Your task to perform on an android device: Open display settings Image 0: 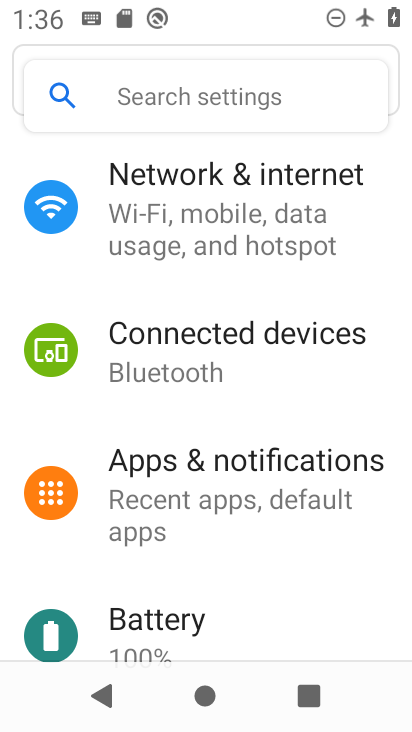
Step 0: drag from (372, 594) to (375, 395)
Your task to perform on an android device: Open display settings Image 1: 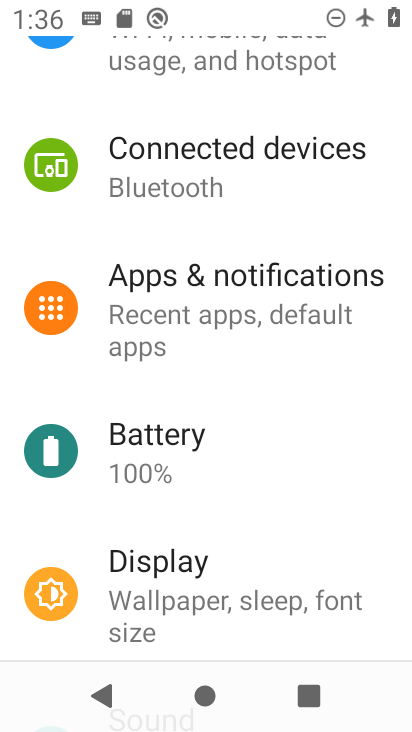
Step 1: drag from (373, 481) to (370, 345)
Your task to perform on an android device: Open display settings Image 2: 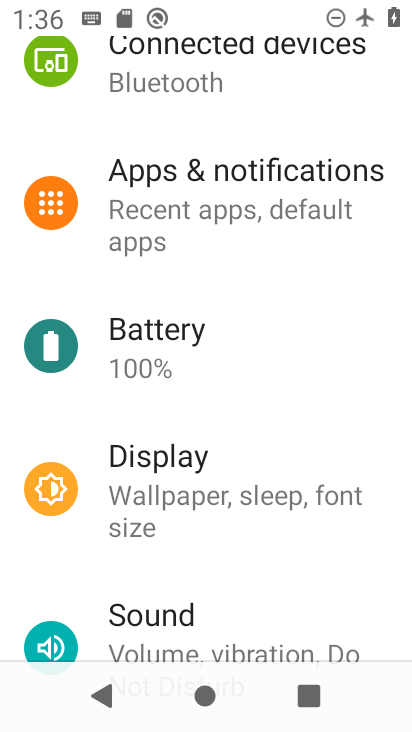
Step 2: drag from (358, 534) to (360, 398)
Your task to perform on an android device: Open display settings Image 3: 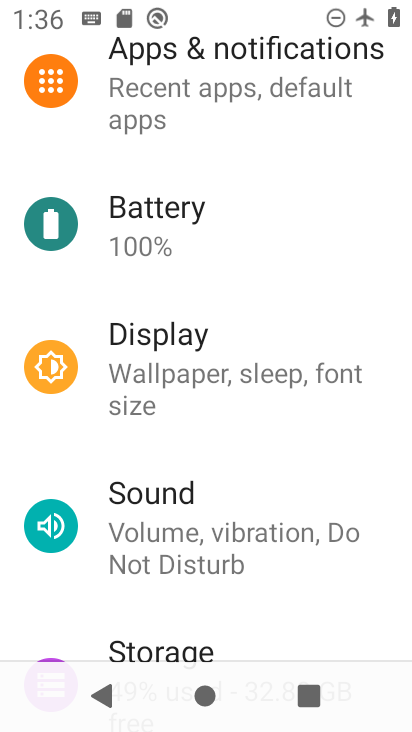
Step 3: drag from (352, 561) to (349, 416)
Your task to perform on an android device: Open display settings Image 4: 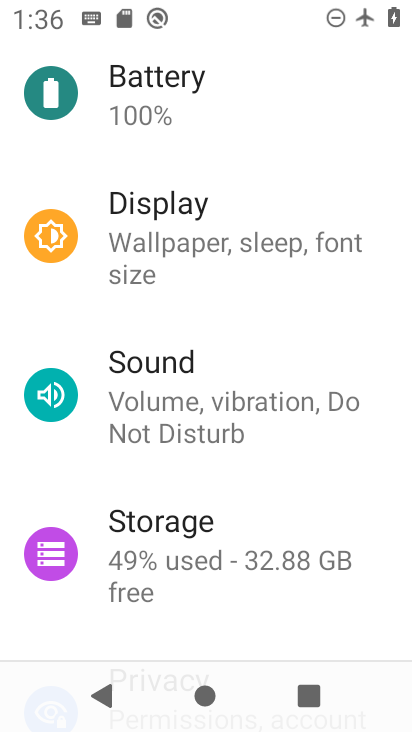
Step 4: drag from (371, 473) to (371, 373)
Your task to perform on an android device: Open display settings Image 5: 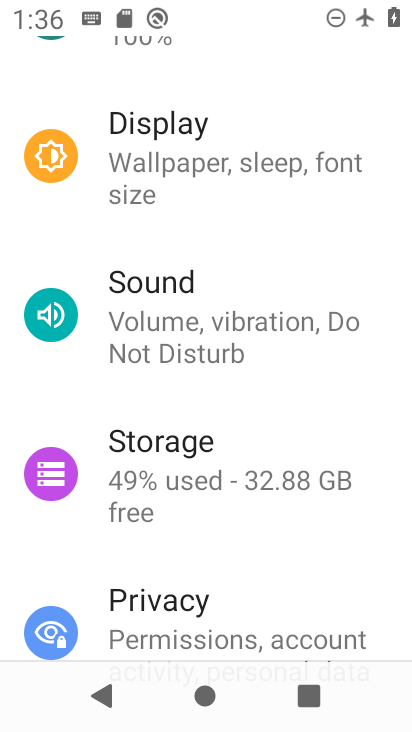
Step 5: drag from (365, 526) to (373, 389)
Your task to perform on an android device: Open display settings Image 6: 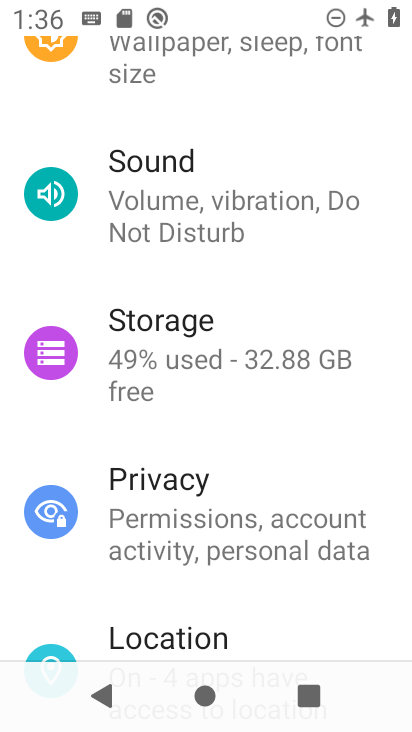
Step 6: drag from (360, 556) to (361, 391)
Your task to perform on an android device: Open display settings Image 7: 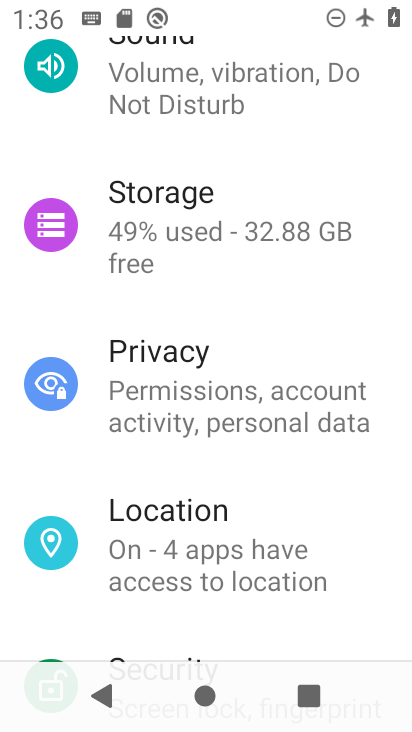
Step 7: drag from (364, 288) to (364, 386)
Your task to perform on an android device: Open display settings Image 8: 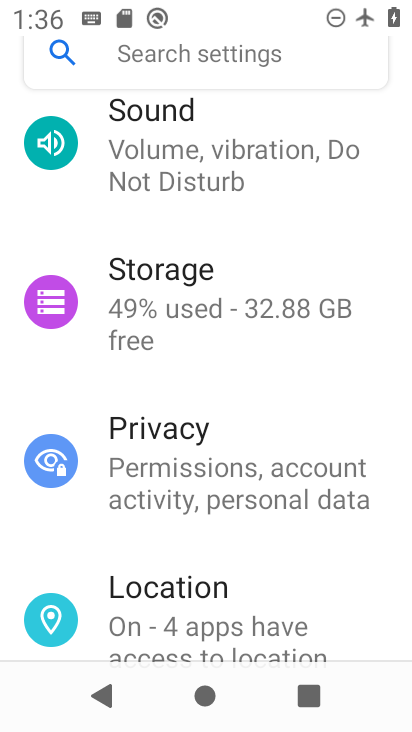
Step 8: drag from (359, 236) to (362, 399)
Your task to perform on an android device: Open display settings Image 9: 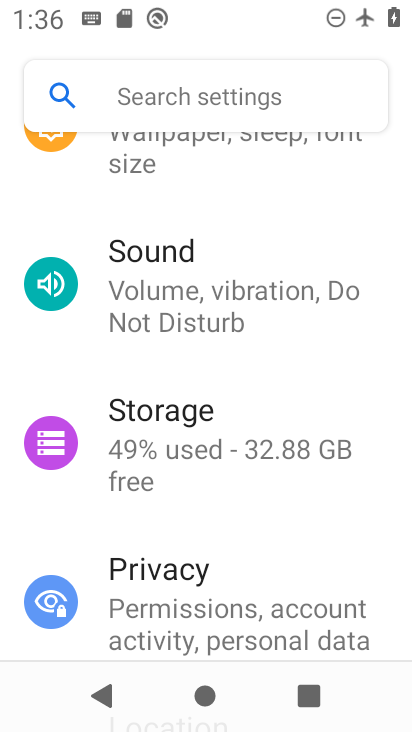
Step 9: drag from (363, 234) to (364, 362)
Your task to perform on an android device: Open display settings Image 10: 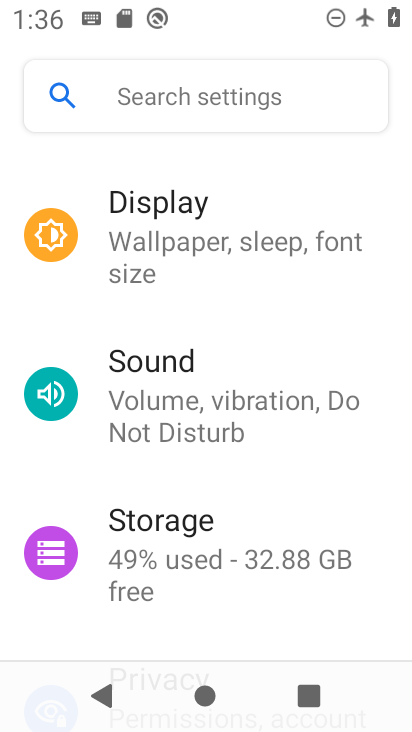
Step 10: drag from (376, 213) to (376, 324)
Your task to perform on an android device: Open display settings Image 11: 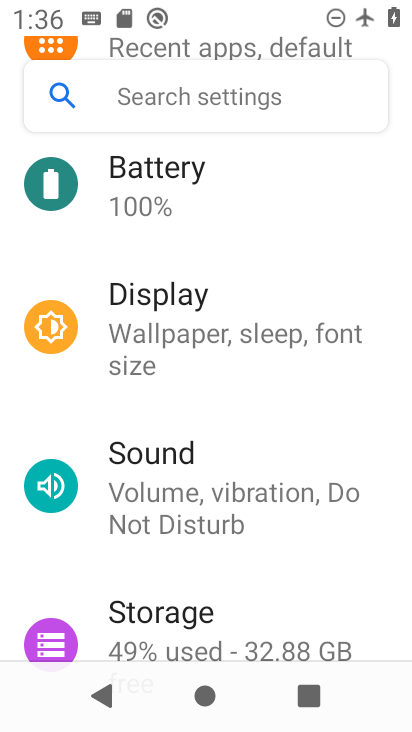
Step 11: drag from (365, 236) to (364, 322)
Your task to perform on an android device: Open display settings Image 12: 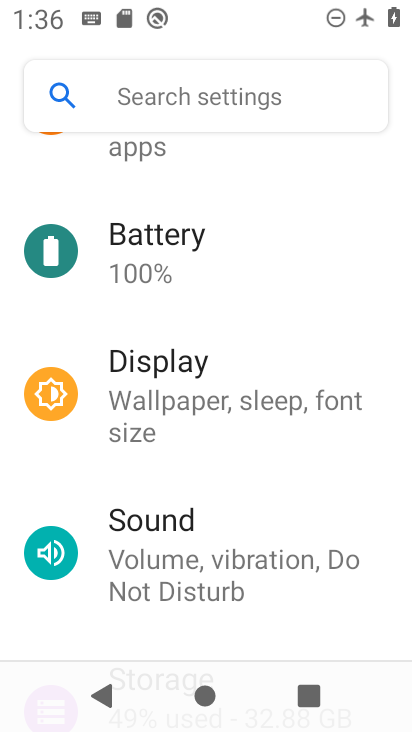
Step 12: click (328, 401)
Your task to perform on an android device: Open display settings Image 13: 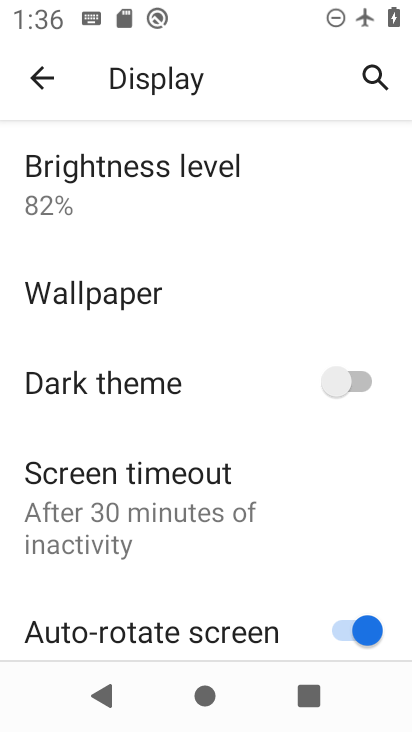
Step 13: task complete